Your task to perform on an android device: check storage Image 0: 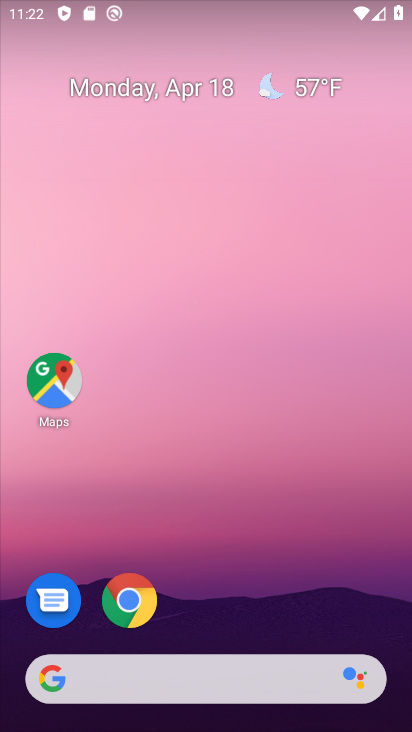
Step 0: drag from (176, 487) to (227, 79)
Your task to perform on an android device: check storage Image 1: 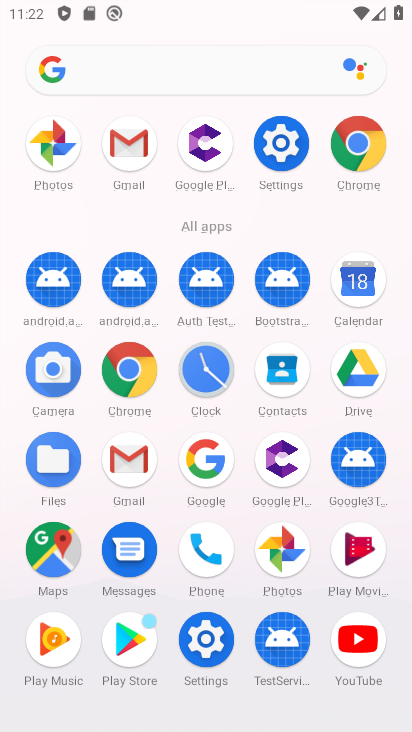
Step 1: click (283, 144)
Your task to perform on an android device: check storage Image 2: 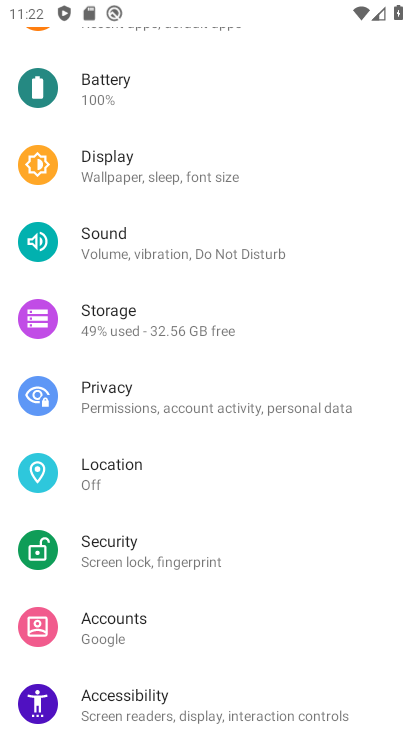
Step 2: click (137, 315)
Your task to perform on an android device: check storage Image 3: 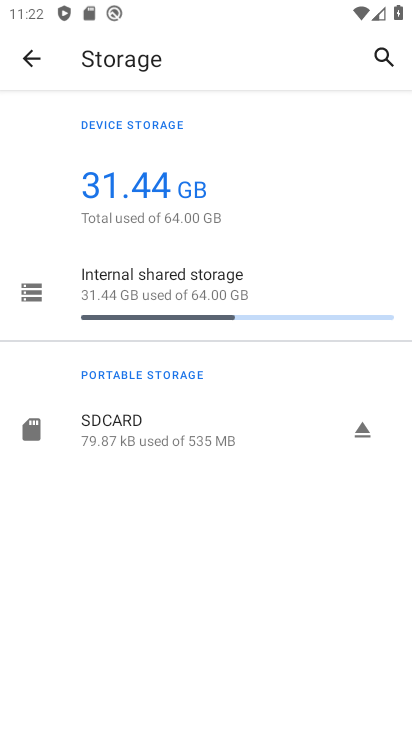
Step 3: task complete